Your task to perform on an android device: turn vacation reply on in the gmail app Image 0: 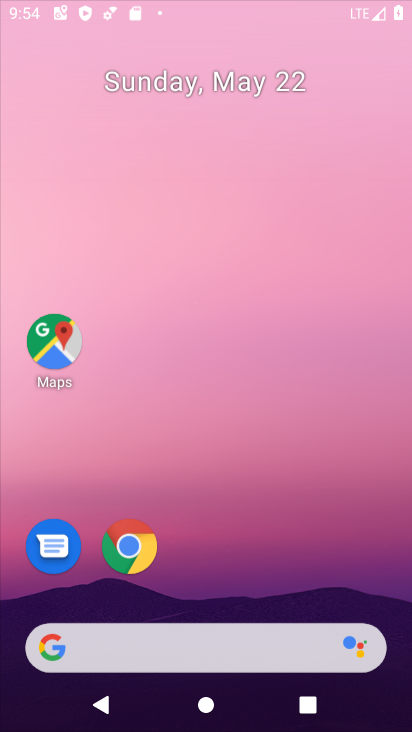
Step 0: click (245, 106)
Your task to perform on an android device: turn vacation reply on in the gmail app Image 1: 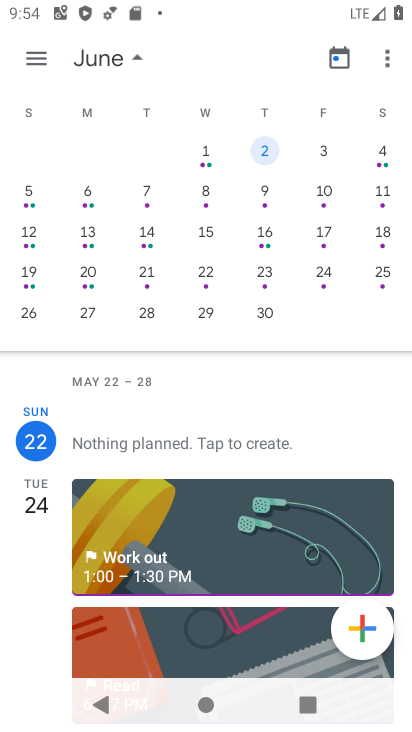
Step 1: drag from (296, 575) to (343, 124)
Your task to perform on an android device: turn vacation reply on in the gmail app Image 2: 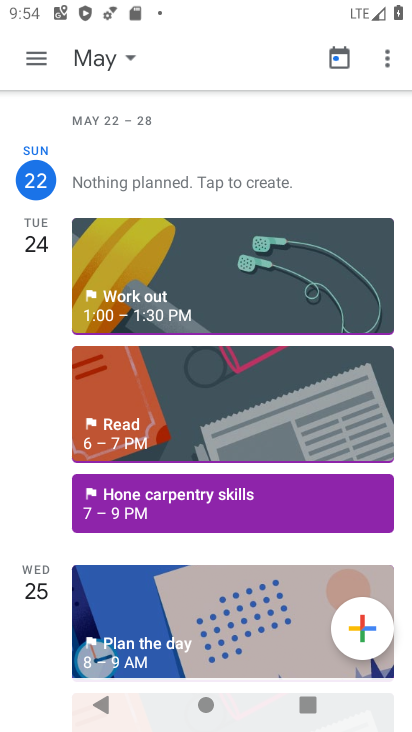
Step 2: drag from (218, 528) to (238, 237)
Your task to perform on an android device: turn vacation reply on in the gmail app Image 3: 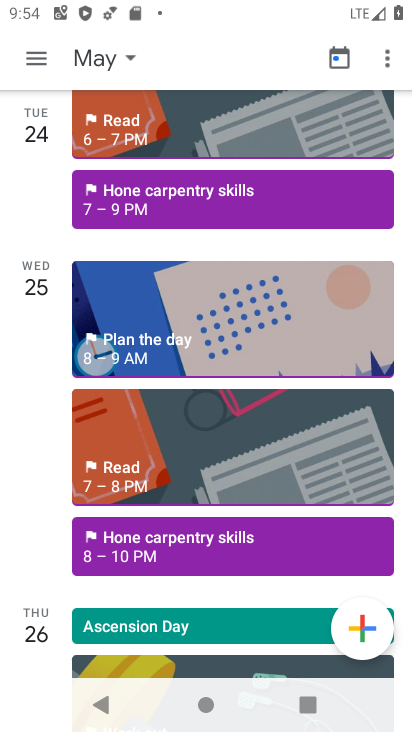
Step 3: press home button
Your task to perform on an android device: turn vacation reply on in the gmail app Image 4: 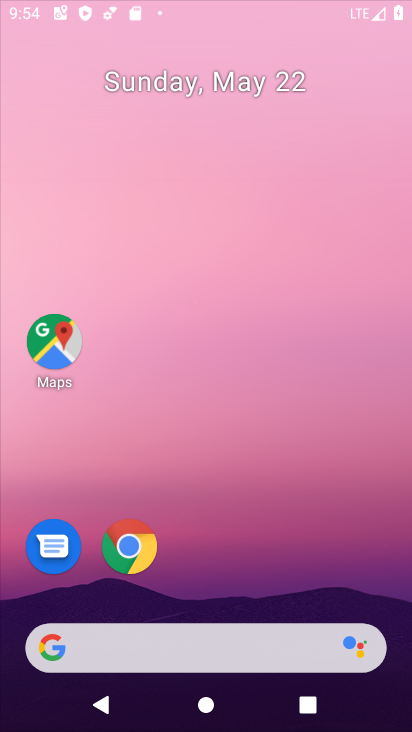
Step 4: drag from (203, 593) to (276, 77)
Your task to perform on an android device: turn vacation reply on in the gmail app Image 5: 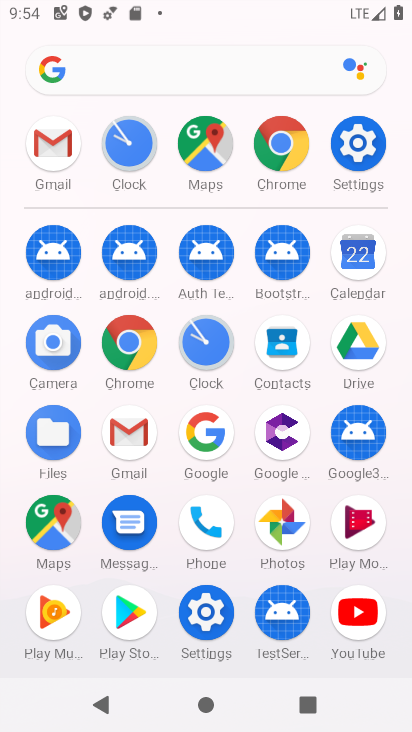
Step 5: click (133, 436)
Your task to perform on an android device: turn vacation reply on in the gmail app Image 6: 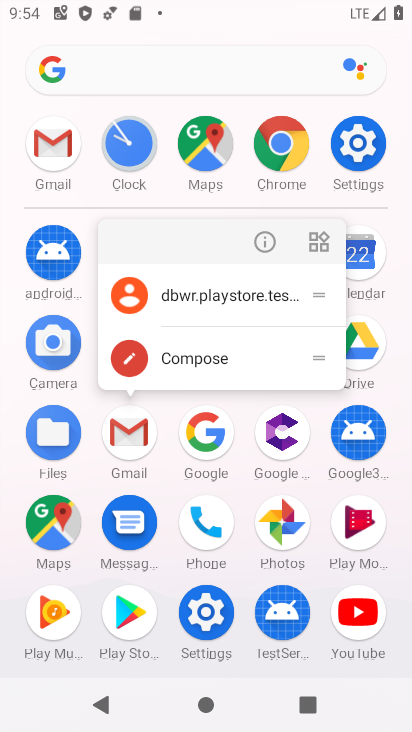
Step 6: click (224, 290)
Your task to perform on an android device: turn vacation reply on in the gmail app Image 7: 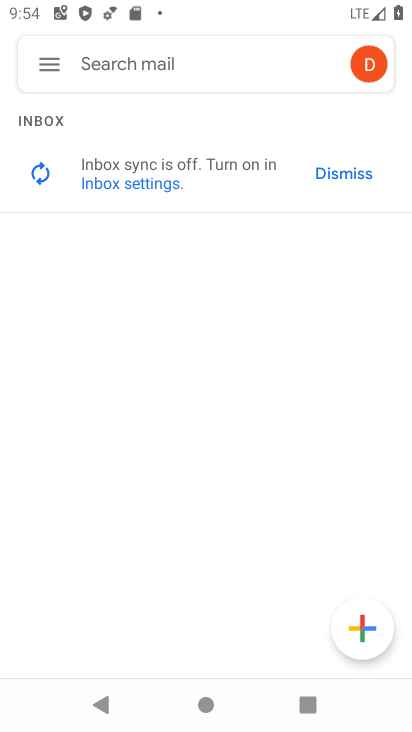
Step 7: click (52, 51)
Your task to perform on an android device: turn vacation reply on in the gmail app Image 8: 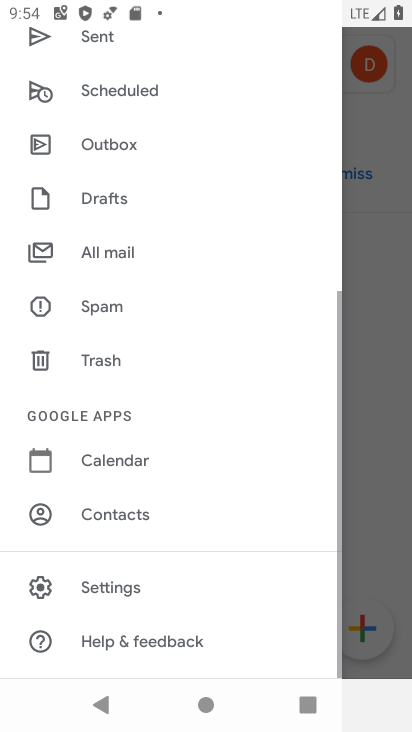
Step 8: drag from (145, 575) to (169, 189)
Your task to perform on an android device: turn vacation reply on in the gmail app Image 9: 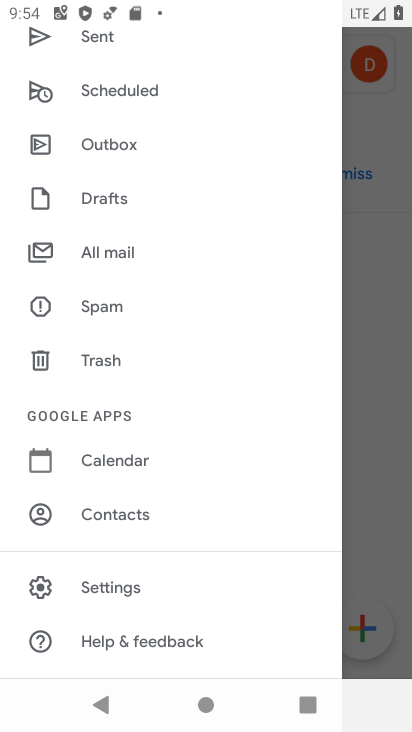
Step 9: click (127, 572)
Your task to perform on an android device: turn vacation reply on in the gmail app Image 10: 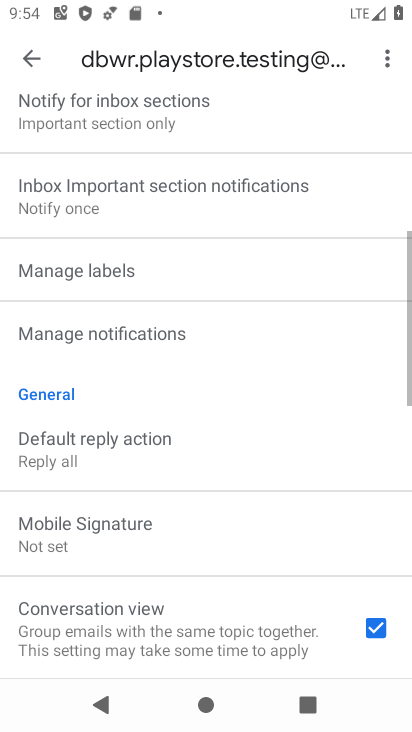
Step 10: drag from (301, 552) to (382, 101)
Your task to perform on an android device: turn vacation reply on in the gmail app Image 11: 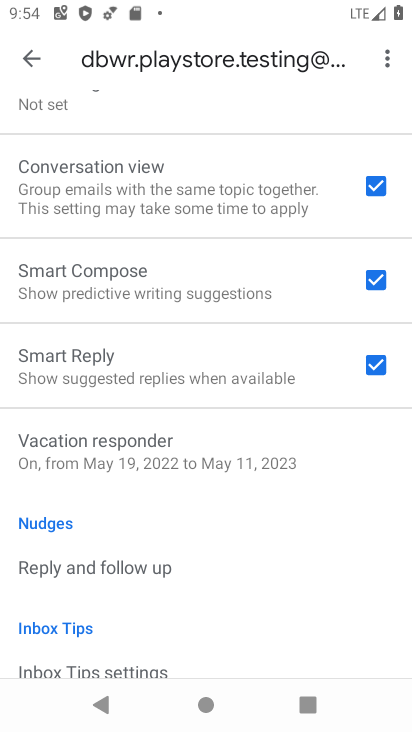
Step 11: drag from (283, 195) to (237, 723)
Your task to perform on an android device: turn vacation reply on in the gmail app Image 12: 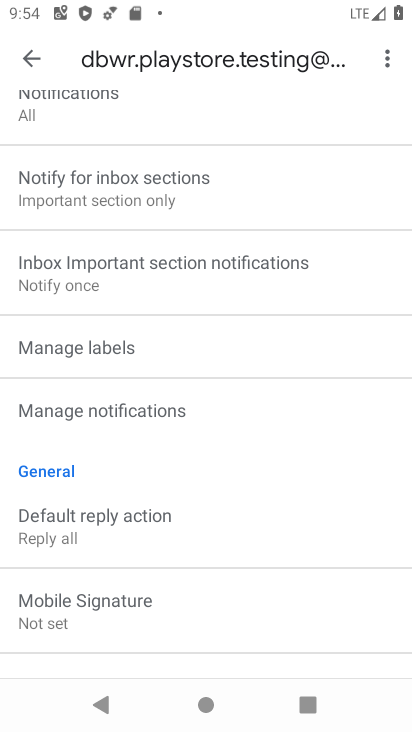
Step 12: drag from (236, 189) to (212, 643)
Your task to perform on an android device: turn vacation reply on in the gmail app Image 13: 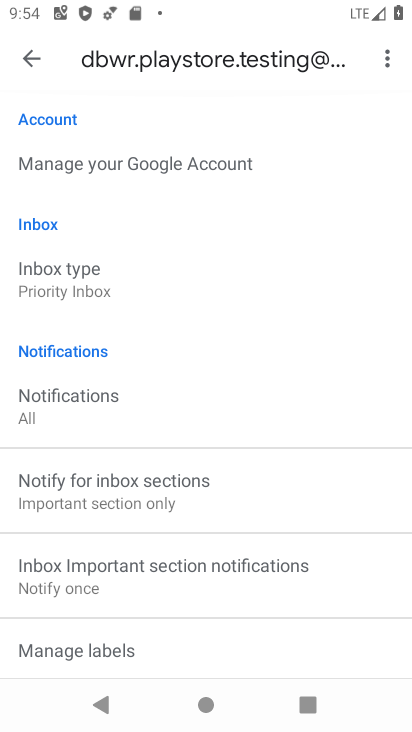
Step 13: drag from (221, 571) to (409, 86)
Your task to perform on an android device: turn vacation reply on in the gmail app Image 14: 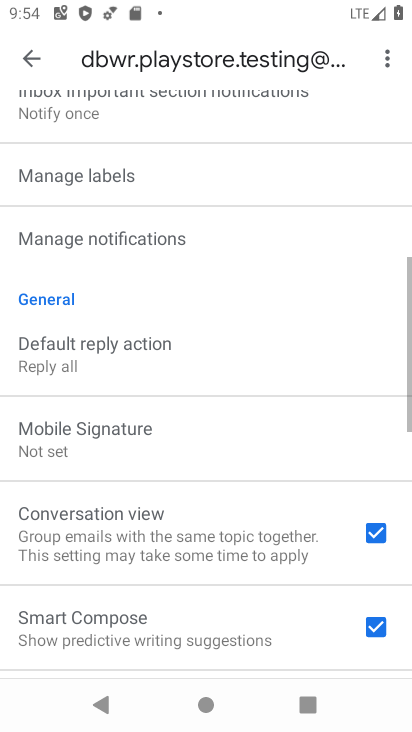
Step 14: drag from (175, 591) to (334, 111)
Your task to perform on an android device: turn vacation reply on in the gmail app Image 15: 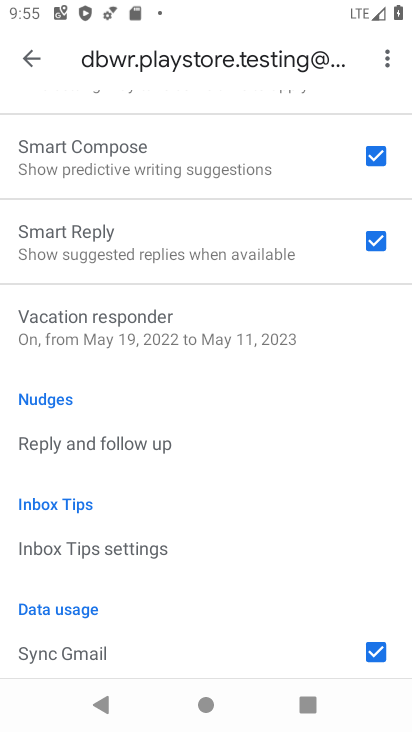
Step 15: click (180, 310)
Your task to perform on an android device: turn vacation reply on in the gmail app Image 16: 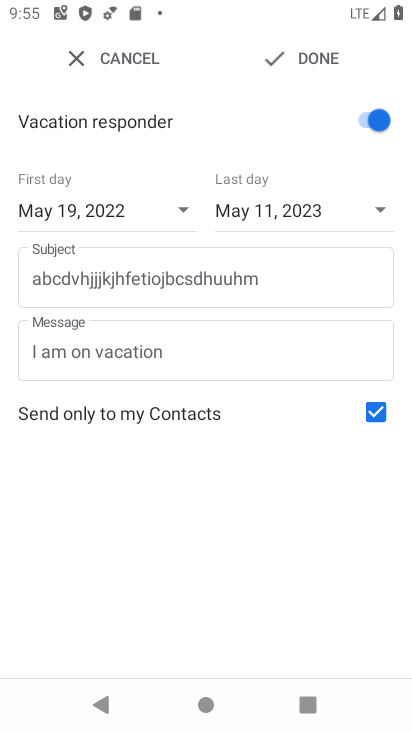
Step 16: click (295, 54)
Your task to perform on an android device: turn vacation reply on in the gmail app Image 17: 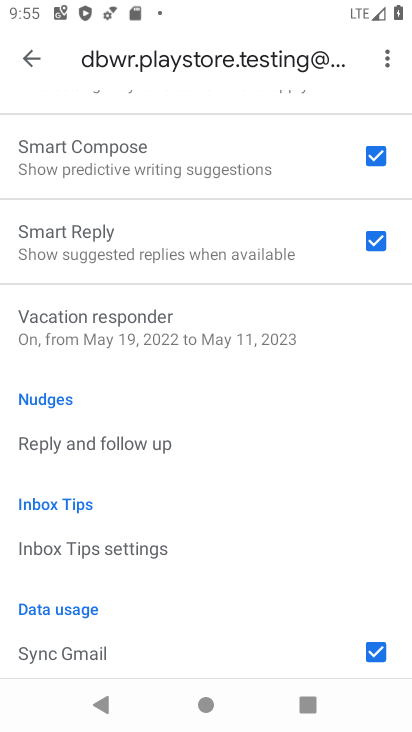
Step 17: task complete